Your task to perform on an android device: open app "HBO Max: Stream TV & Movies" (install if not already installed), go to login, and select forgot password Image 0: 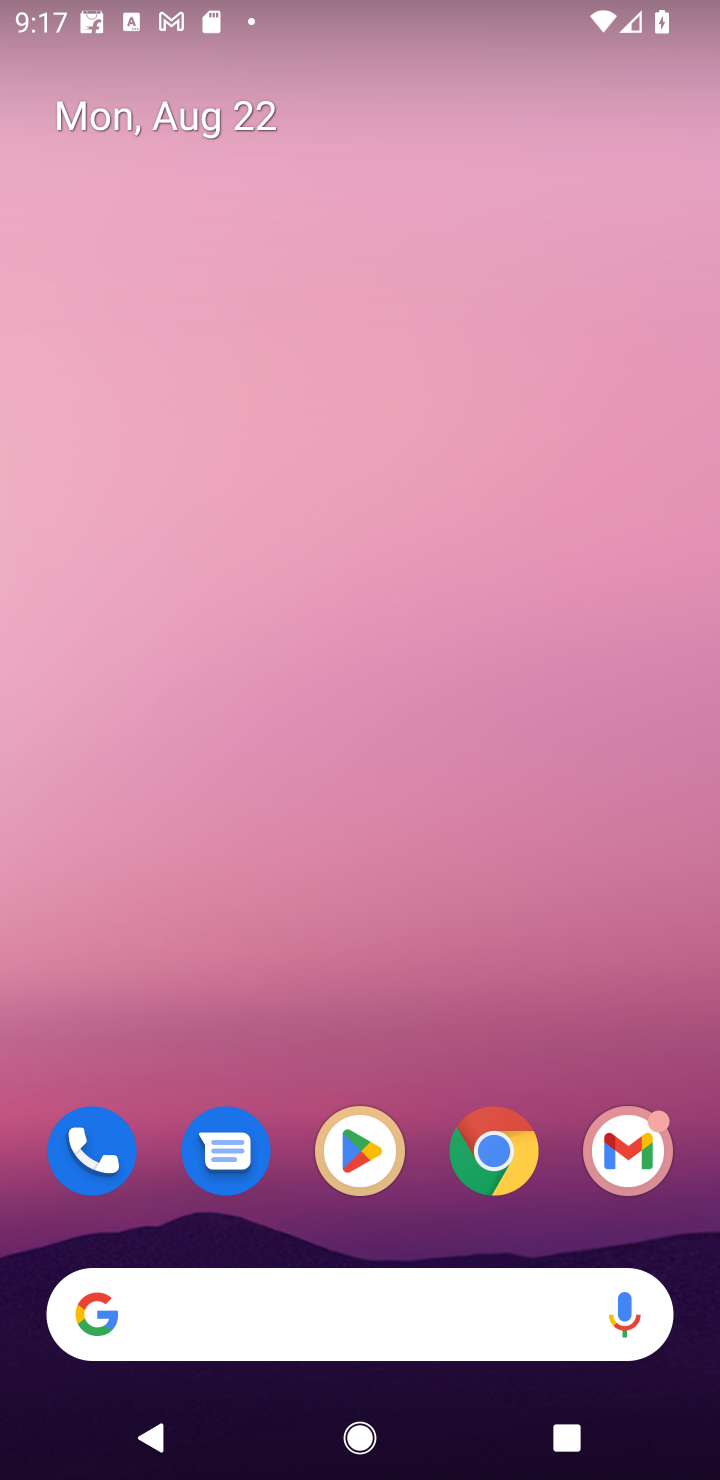
Step 0: click (352, 1156)
Your task to perform on an android device: open app "HBO Max: Stream TV & Movies" (install if not already installed), go to login, and select forgot password Image 1: 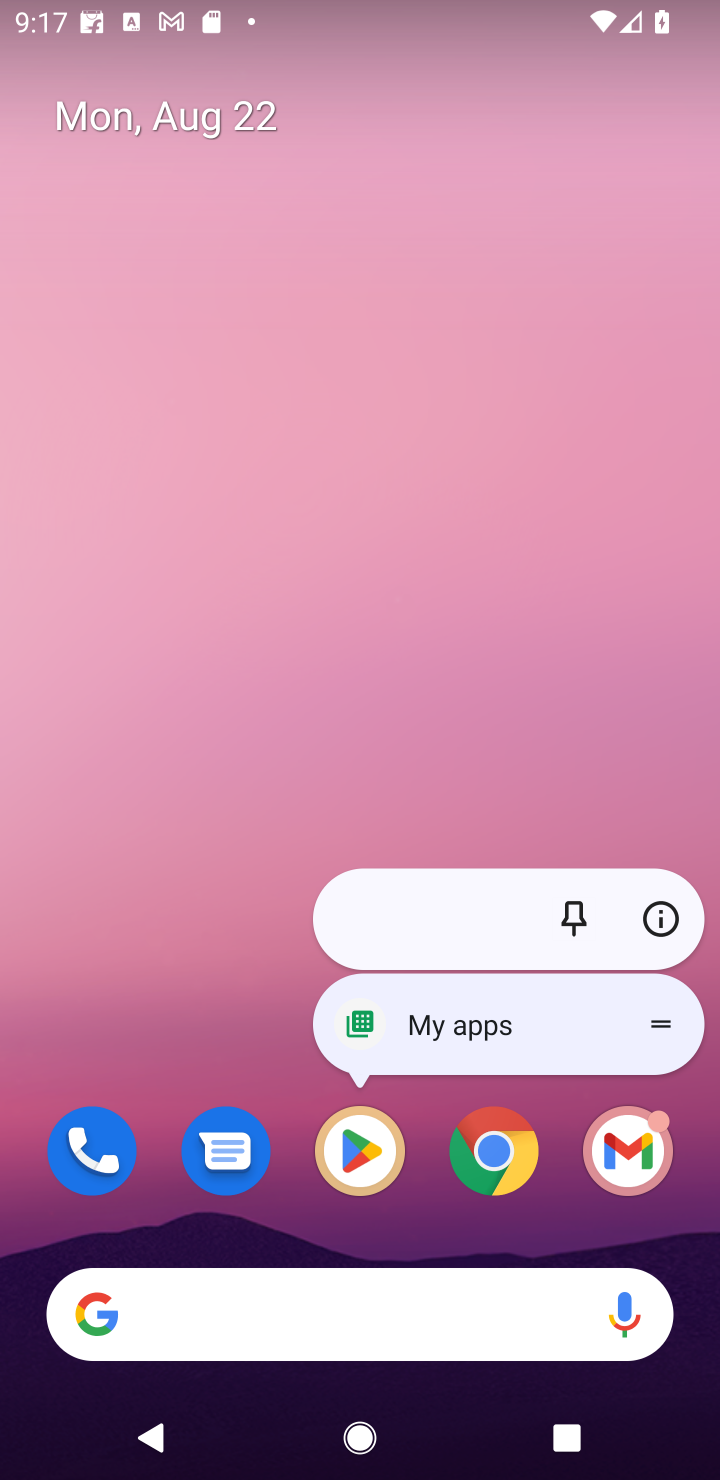
Step 1: click (352, 1157)
Your task to perform on an android device: open app "HBO Max: Stream TV & Movies" (install if not already installed), go to login, and select forgot password Image 2: 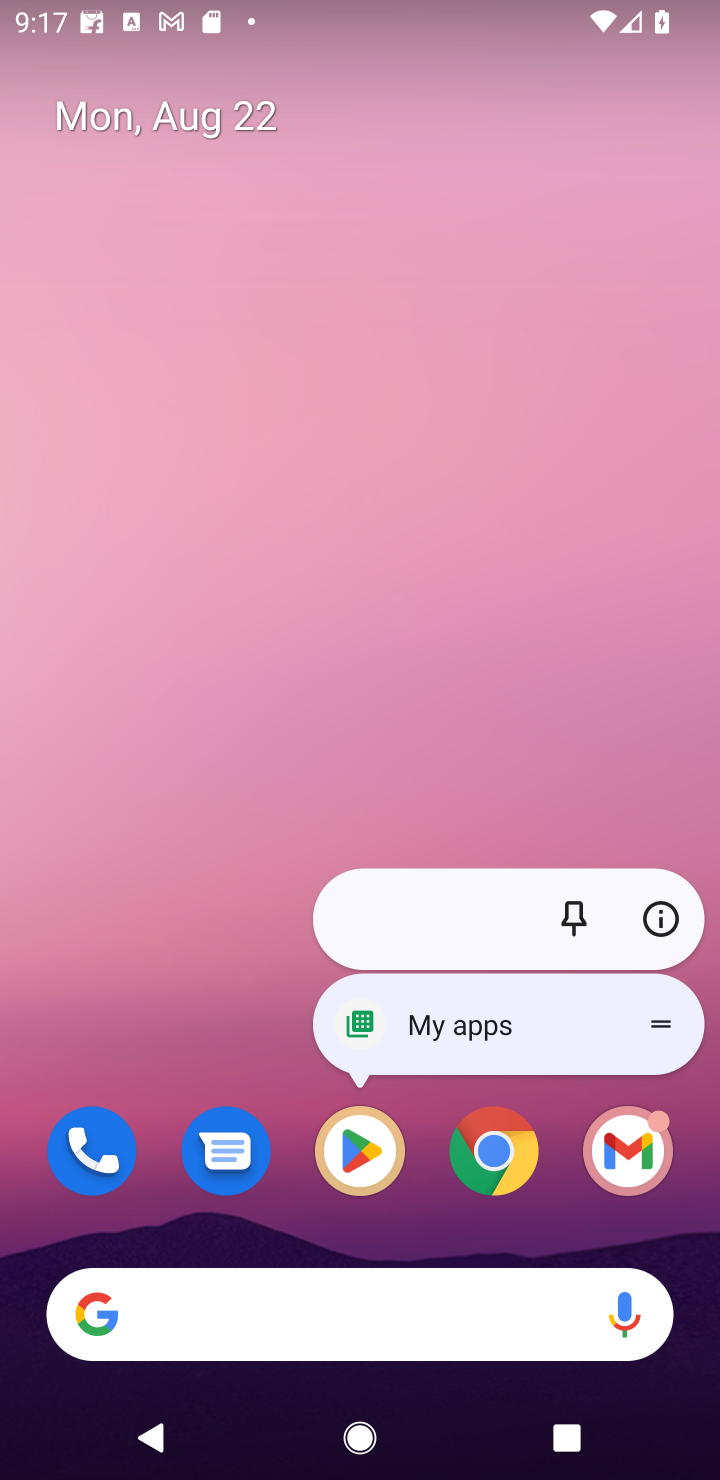
Step 2: click (352, 1167)
Your task to perform on an android device: open app "HBO Max: Stream TV & Movies" (install if not already installed), go to login, and select forgot password Image 3: 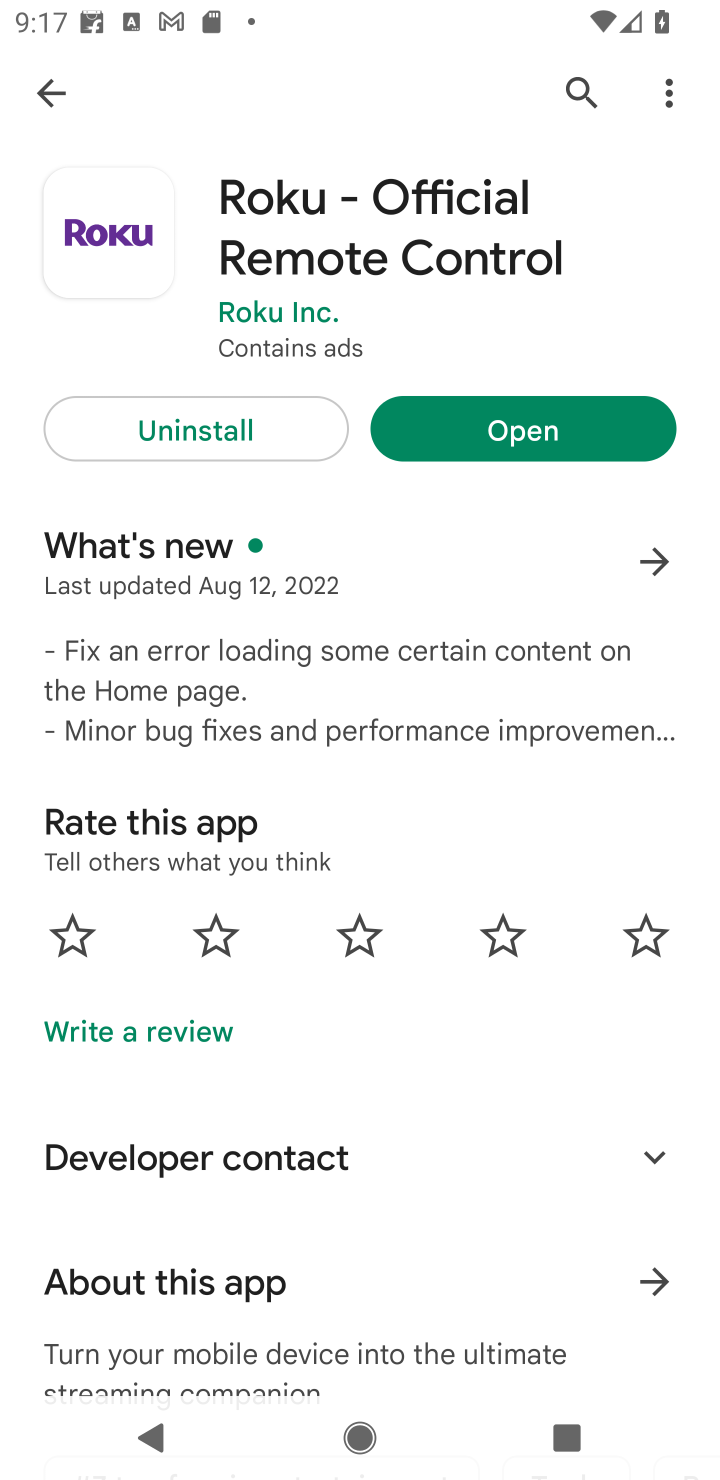
Step 3: click (567, 81)
Your task to perform on an android device: open app "HBO Max: Stream TV & Movies" (install if not already installed), go to login, and select forgot password Image 4: 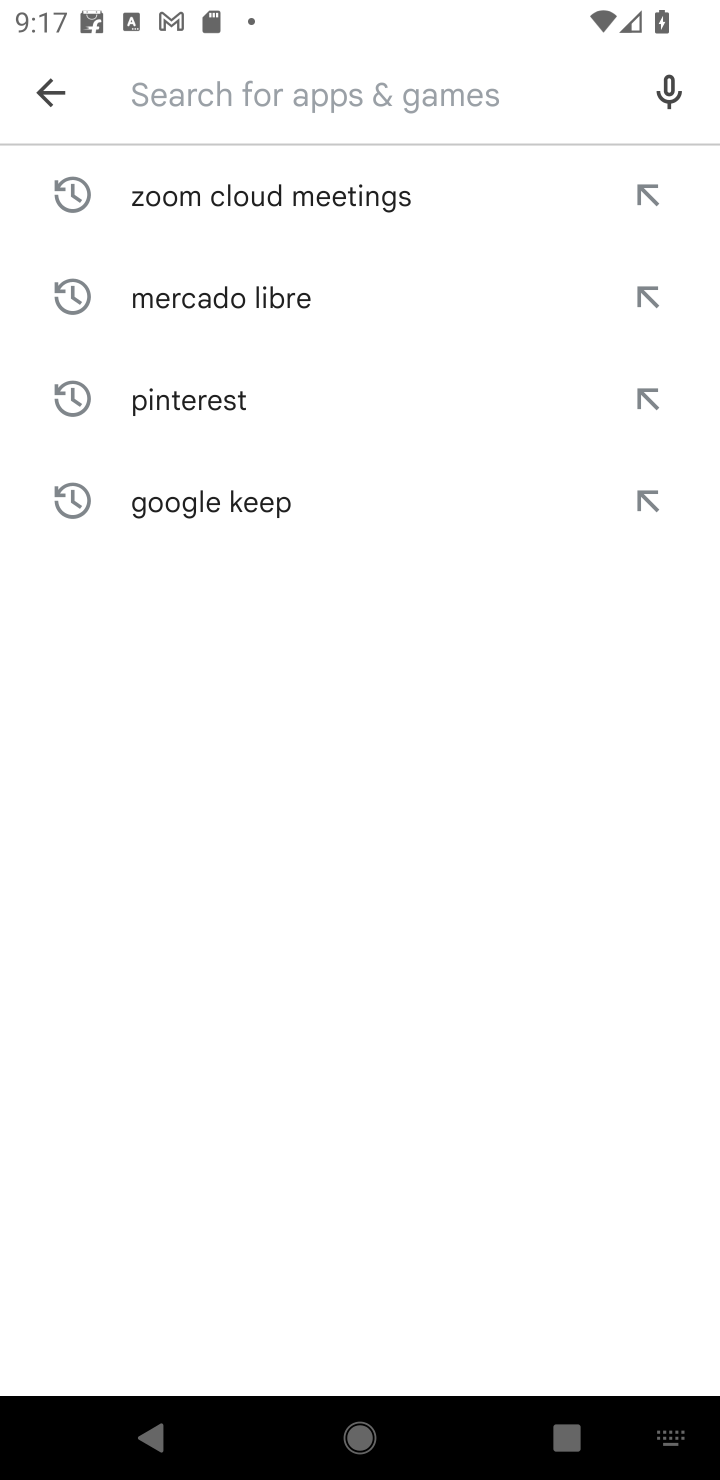
Step 4: type "HBO Max: Stream TV & Movies"
Your task to perform on an android device: open app "HBO Max: Stream TV & Movies" (install if not already installed), go to login, and select forgot password Image 5: 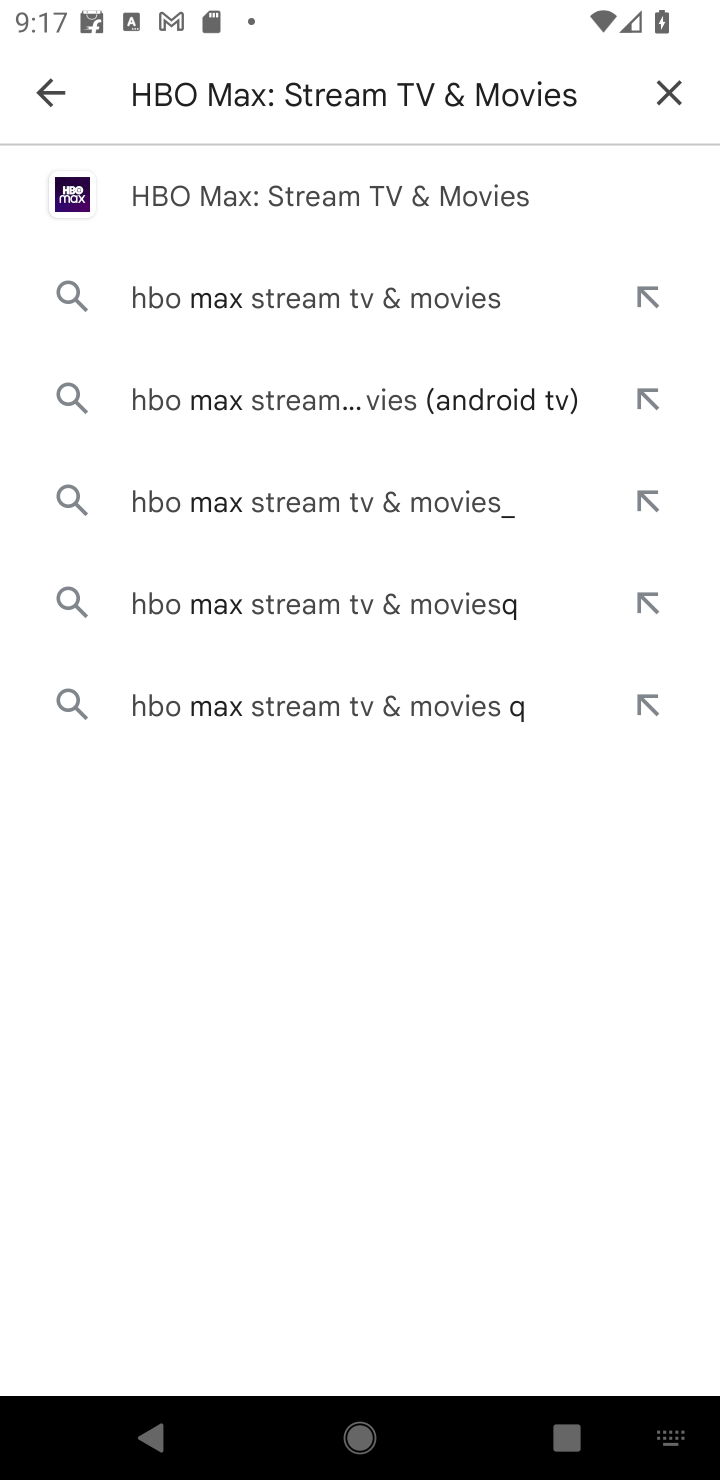
Step 5: click (317, 197)
Your task to perform on an android device: open app "HBO Max: Stream TV & Movies" (install if not already installed), go to login, and select forgot password Image 6: 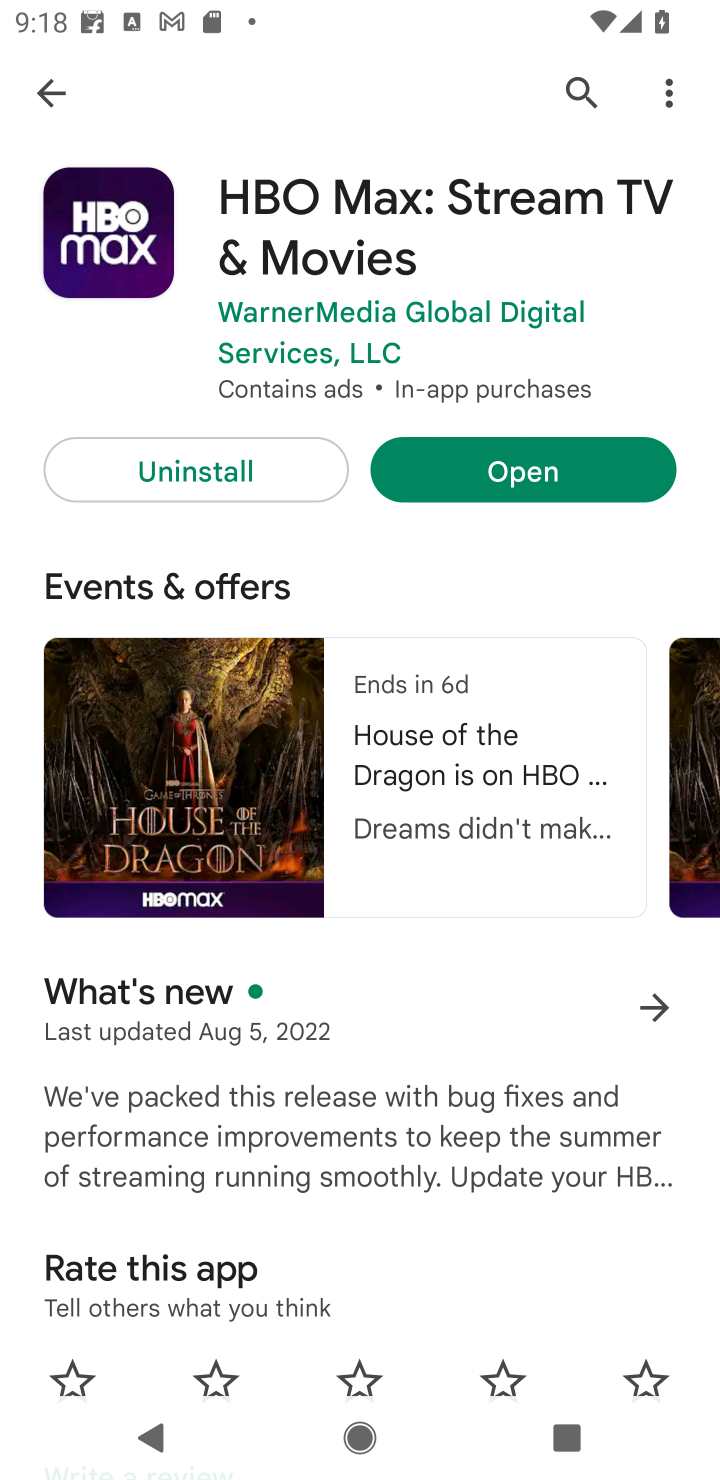
Step 6: click (515, 472)
Your task to perform on an android device: open app "HBO Max: Stream TV & Movies" (install if not already installed), go to login, and select forgot password Image 7: 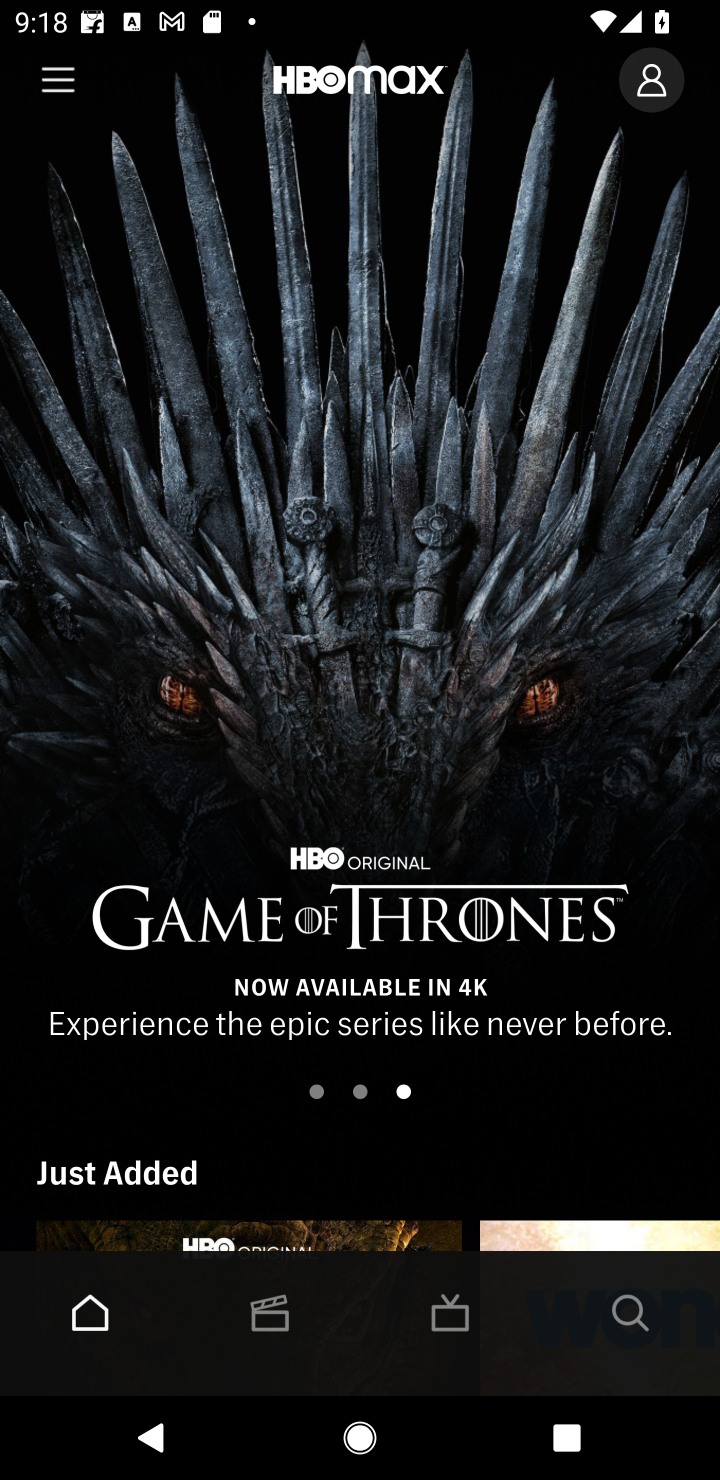
Step 7: task complete